Your task to perform on an android device: change the clock display to digital Image 0: 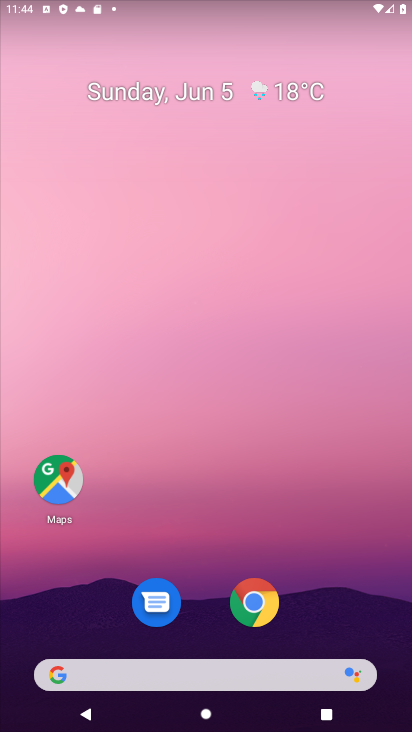
Step 0: task complete